Your task to perform on an android device: change the clock display to show seconds Image 0: 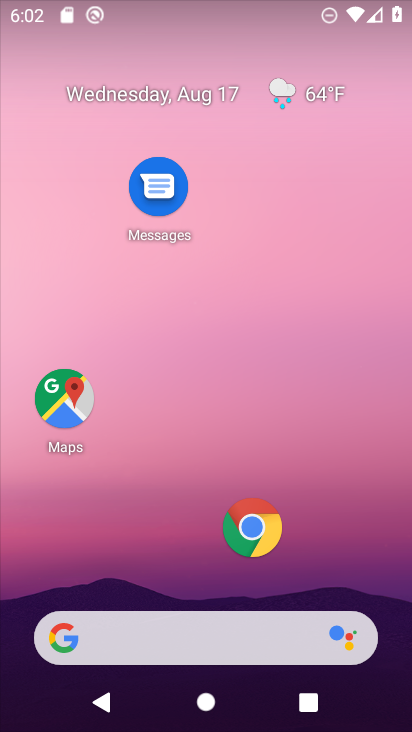
Step 0: drag from (163, 595) to (207, 290)
Your task to perform on an android device: change the clock display to show seconds Image 1: 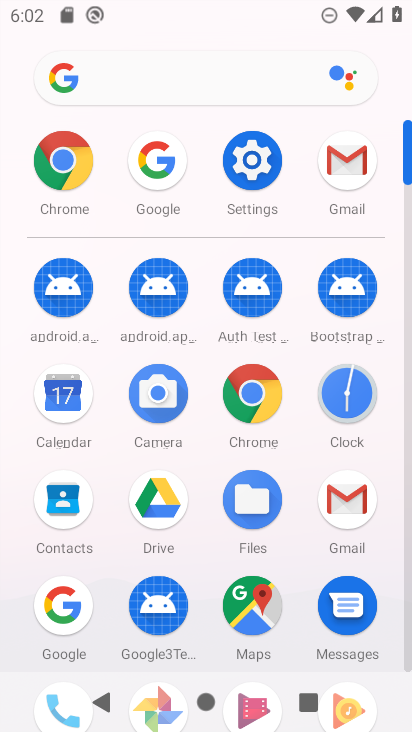
Step 1: click (334, 399)
Your task to perform on an android device: change the clock display to show seconds Image 2: 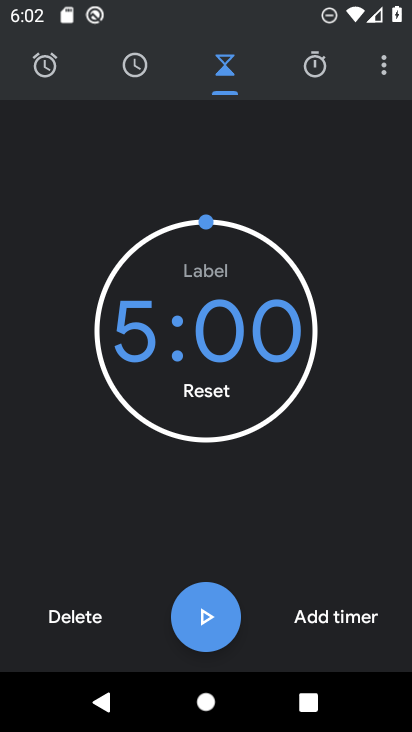
Step 2: click (384, 66)
Your task to perform on an android device: change the clock display to show seconds Image 3: 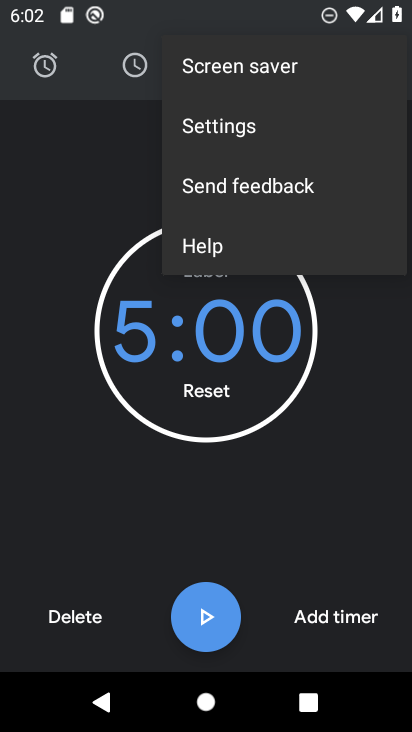
Step 3: click (261, 122)
Your task to perform on an android device: change the clock display to show seconds Image 4: 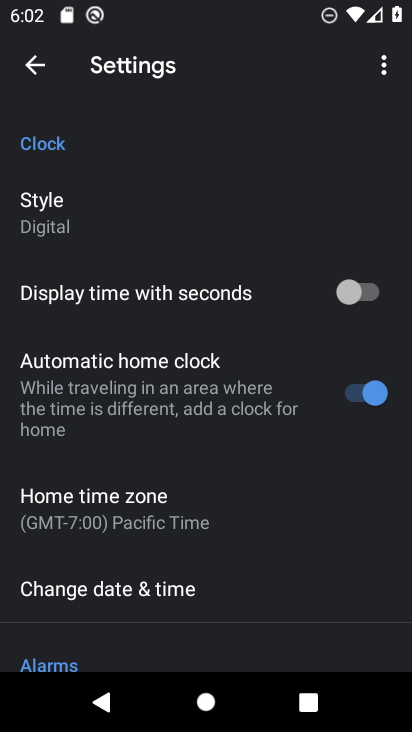
Step 4: click (366, 292)
Your task to perform on an android device: change the clock display to show seconds Image 5: 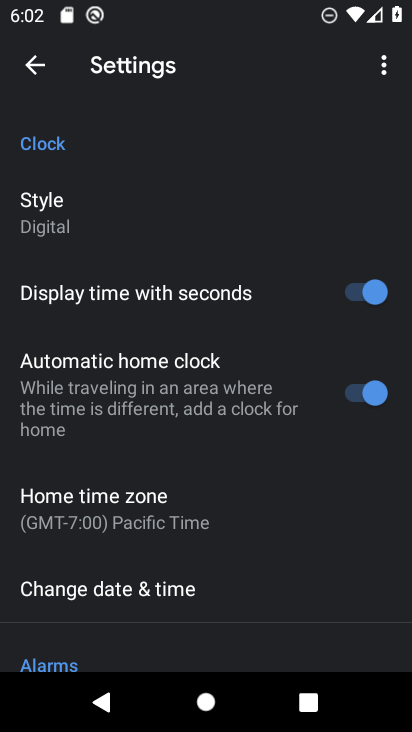
Step 5: task complete